Your task to perform on an android device: Go to Wikipedia Image 0: 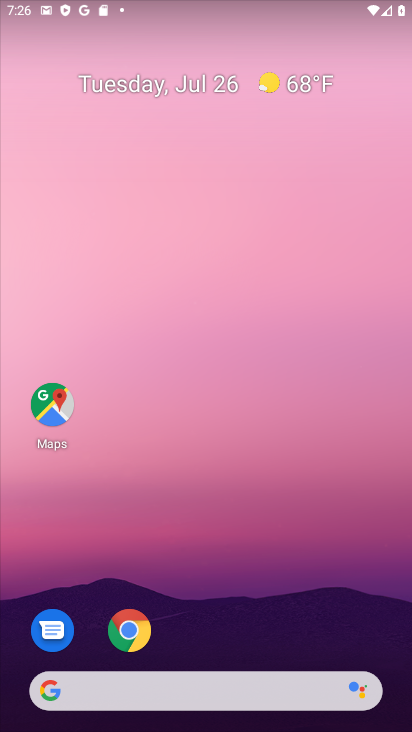
Step 0: press home button
Your task to perform on an android device: Go to Wikipedia Image 1: 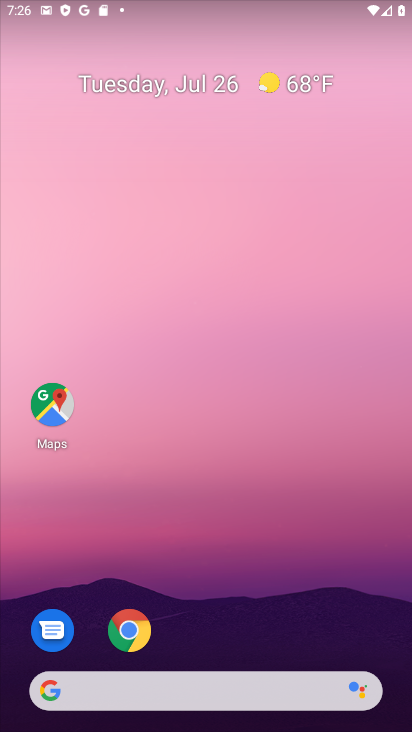
Step 1: drag from (313, 598) to (320, 136)
Your task to perform on an android device: Go to Wikipedia Image 2: 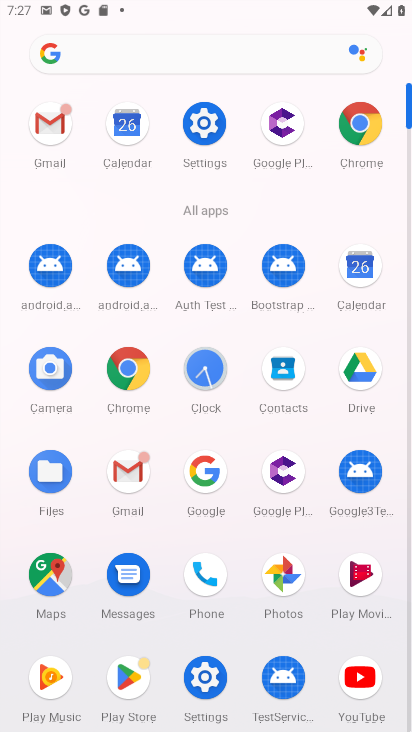
Step 2: click (123, 371)
Your task to perform on an android device: Go to Wikipedia Image 3: 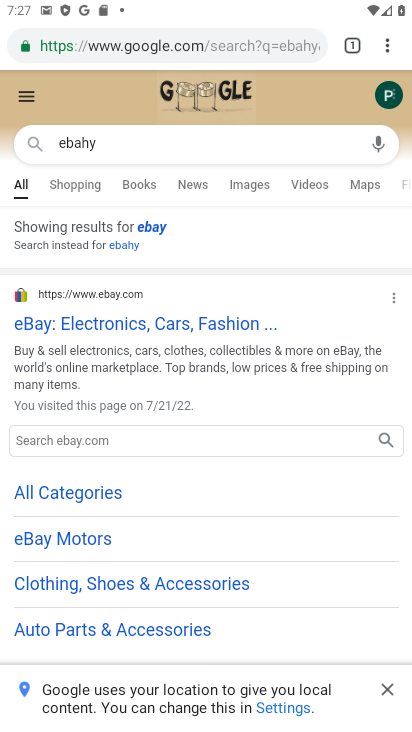
Step 3: click (205, 43)
Your task to perform on an android device: Go to Wikipedia Image 4: 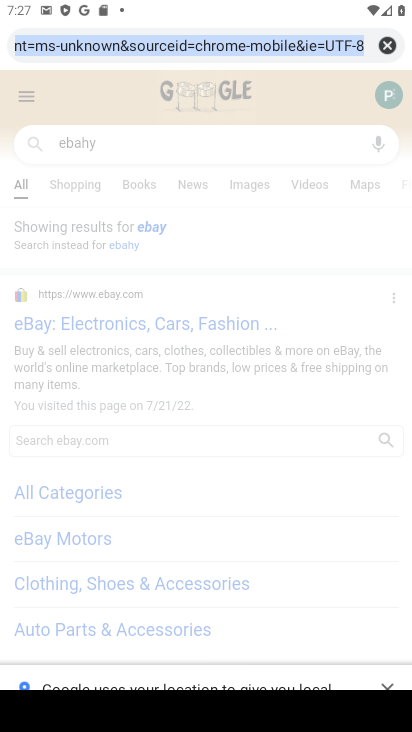
Step 4: type "wikipedia"
Your task to perform on an android device: Go to Wikipedia Image 5: 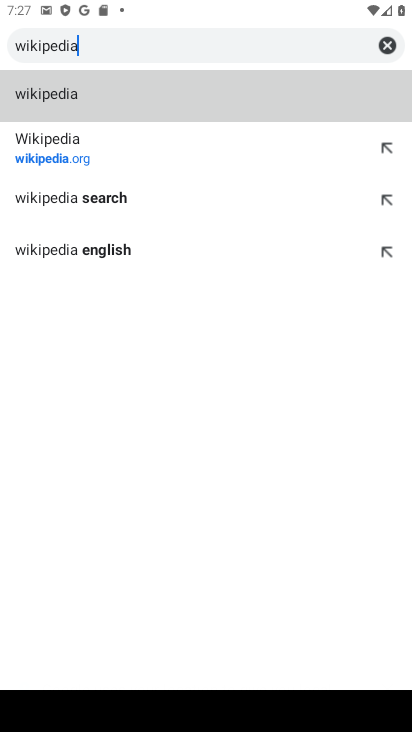
Step 5: click (193, 90)
Your task to perform on an android device: Go to Wikipedia Image 6: 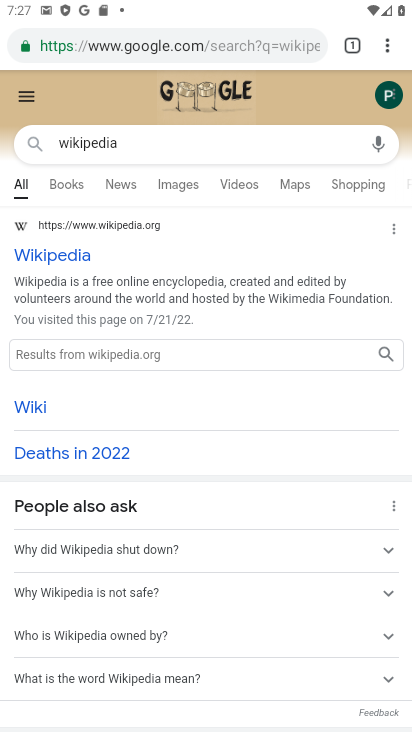
Step 6: task complete